Your task to perform on an android device: Open Google Maps and go to "Timeline" Image 0: 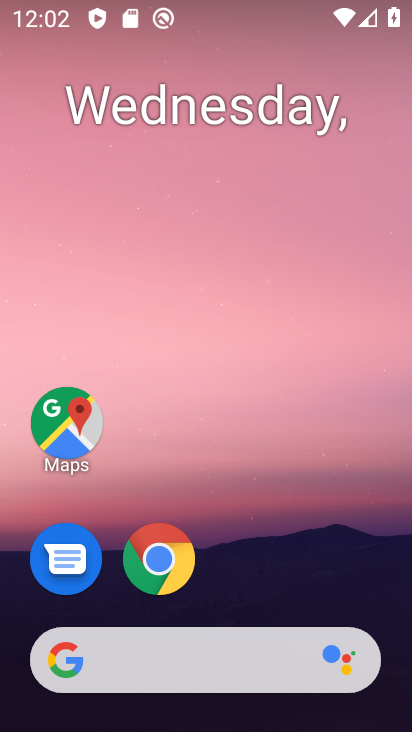
Step 0: click (78, 433)
Your task to perform on an android device: Open Google Maps and go to "Timeline" Image 1: 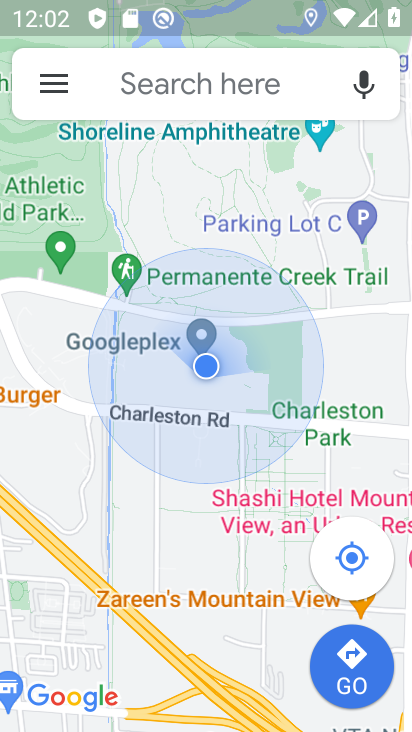
Step 1: click (40, 80)
Your task to perform on an android device: Open Google Maps and go to "Timeline" Image 2: 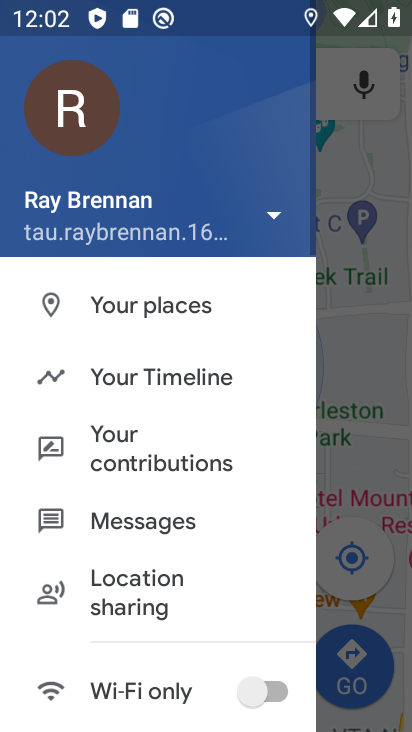
Step 2: click (127, 376)
Your task to perform on an android device: Open Google Maps and go to "Timeline" Image 3: 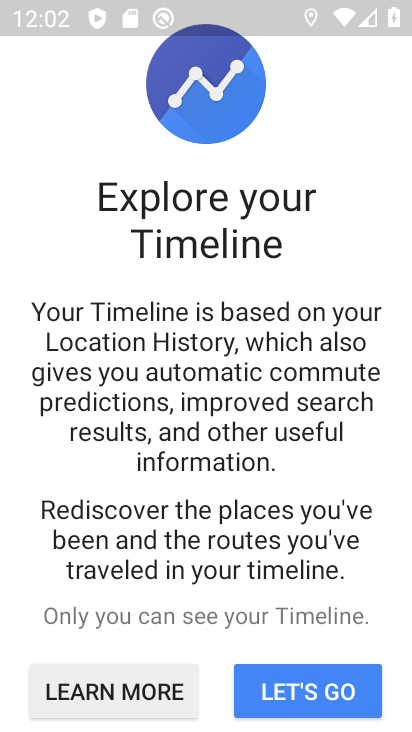
Step 3: task complete